Your task to perform on an android device: Go to Android settings Image 0: 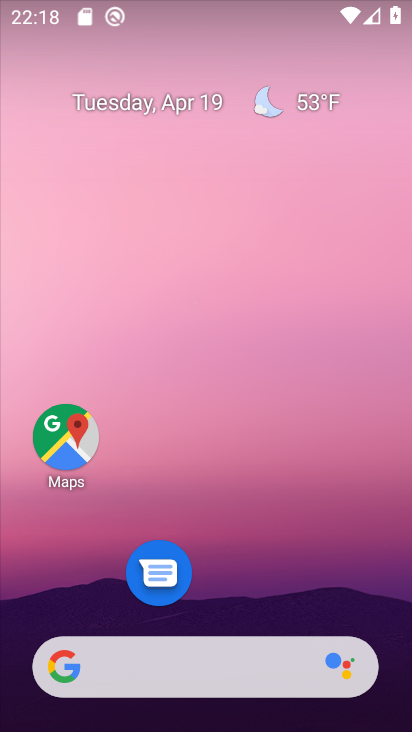
Step 0: drag from (227, 601) to (226, 66)
Your task to perform on an android device: Go to Android settings Image 1: 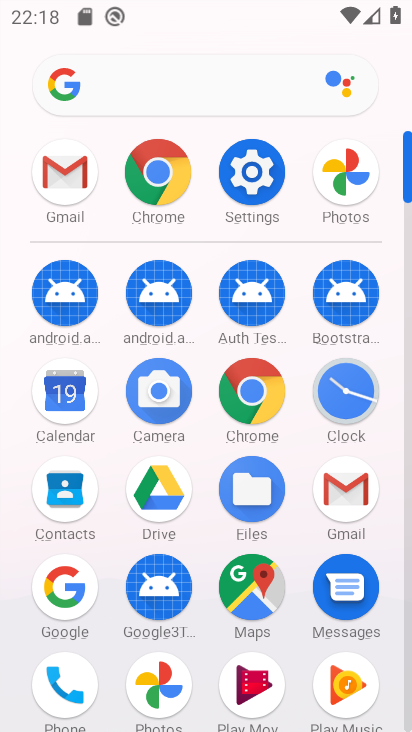
Step 1: click (253, 164)
Your task to perform on an android device: Go to Android settings Image 2: 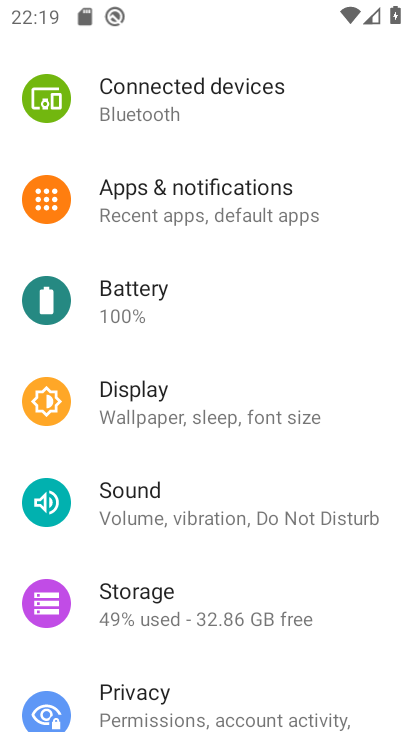
Step 2: drag from (232, 676) to (249, 82)
Your task to perform on an android device: Go to Android settings Image 3: 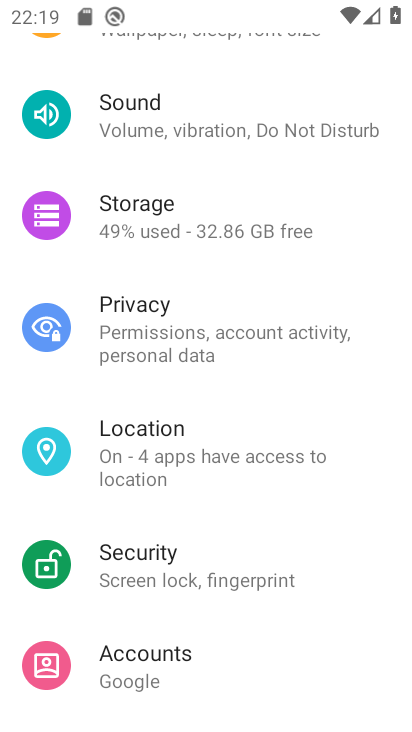
Step 3: drag from (222, 681) to (205, 186)
Your task to perform on an android device: Go to Android settings Image 4: 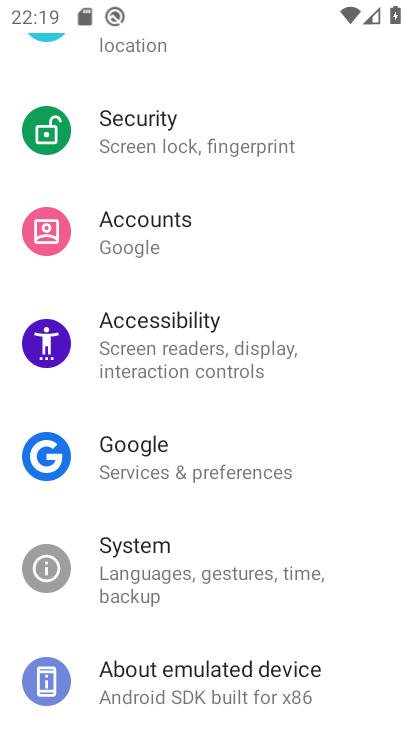
Step 4: click (242, 687)
Your task to perform on an android device: Go to Android settings Image 5: 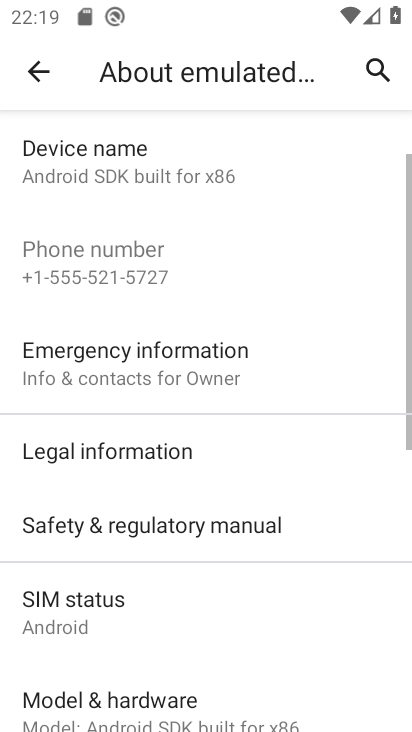
Step 5: task complete